Your task to perform on an android device: Search for seafood restaurants on Google Maps Image 0: 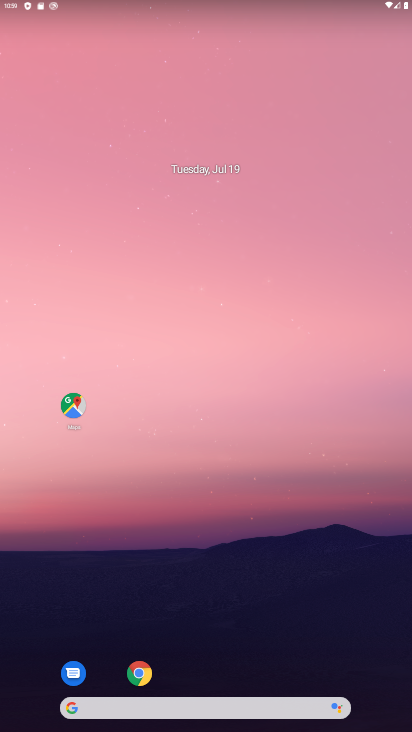
Step 0: click (71, 402)
Your task to perform on an android device: Search for seafood restaurants on Google Maps Image 1: 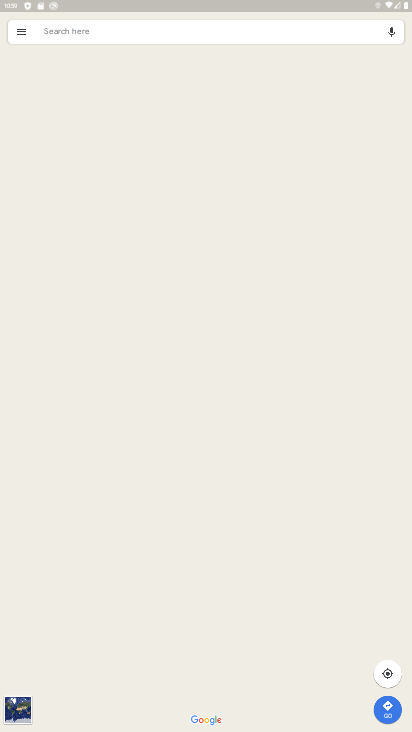
Step 1: click (197, 29)
Your task to perform on an android device: Search for seafood restaurants on Google Maps Image 2: 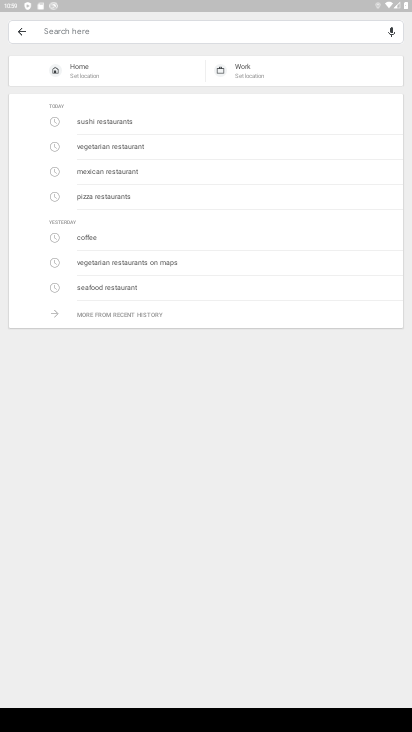
Step 2: type "seafood restaurants"
Your task to perform on an android device: Search for seafood restaurants on Google Maps Image 3: 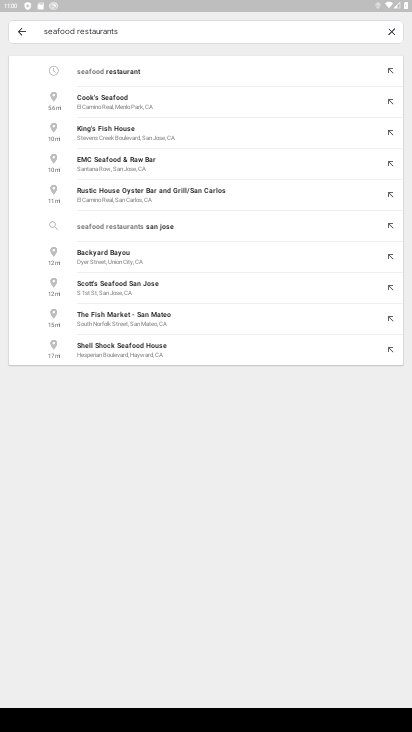
Step 3: click (151, 74)
Your task to perform on an android device: Search for seafood restaurants on Google Maps Image 4: 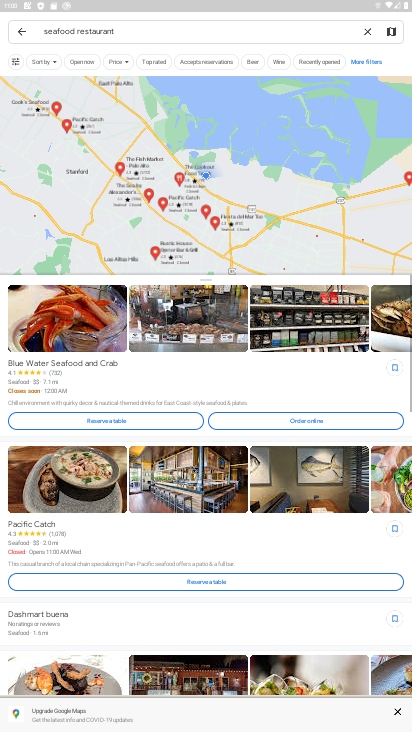
Step 4: task complete